Your task to perform on an android device: turn off airplane mode Image 0: 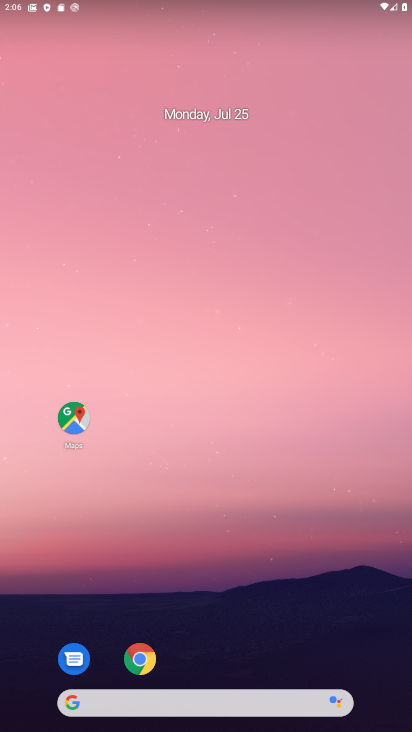
Step 0: drag from (237, 694) to (277, 188)
Your task to perform on an android device: turn off airplane mode Image 1: 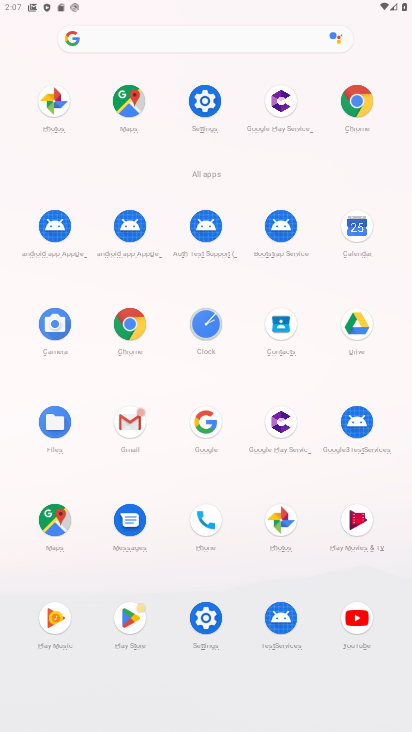
Step 1: click (199, 100)
Your task to perform on an android device: turn off airplane mode Image 2: 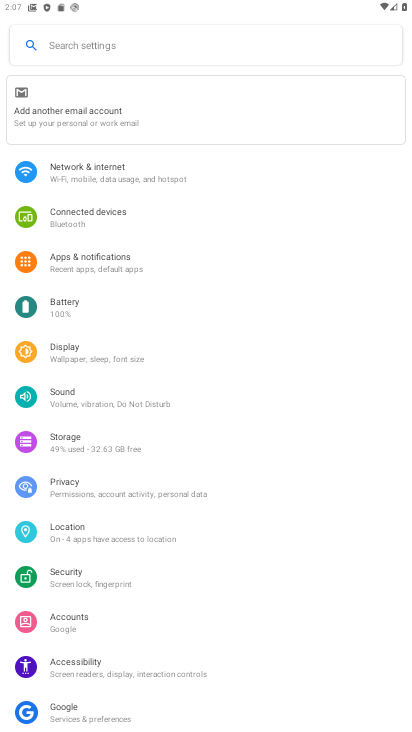
Step 2: click (87, 177)
Your task to perform on an android device: turn off airplane mode Image 3: 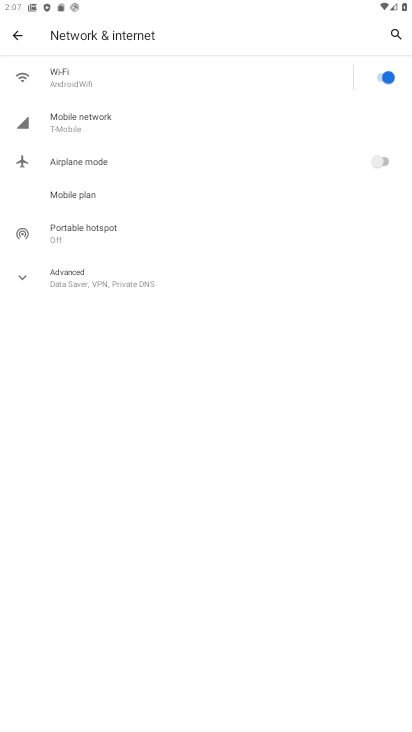
Step 3: click (383, 77)
Your task to perform on an android device: turn off airplane mode Image 4: 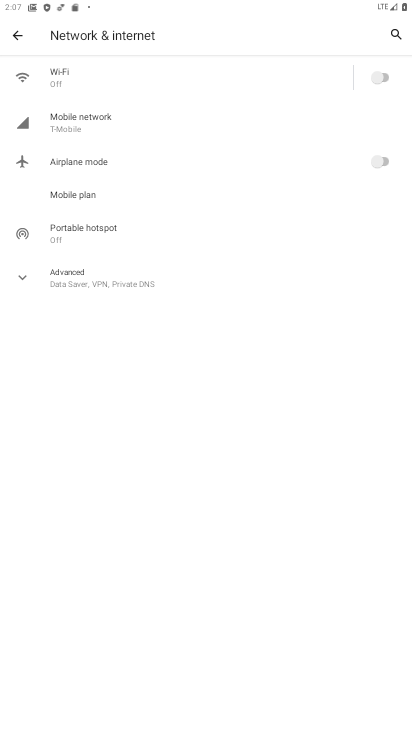
Step 4: click (390, 71)
Your task to perform on an android device: turn off airplane mode Image 5: 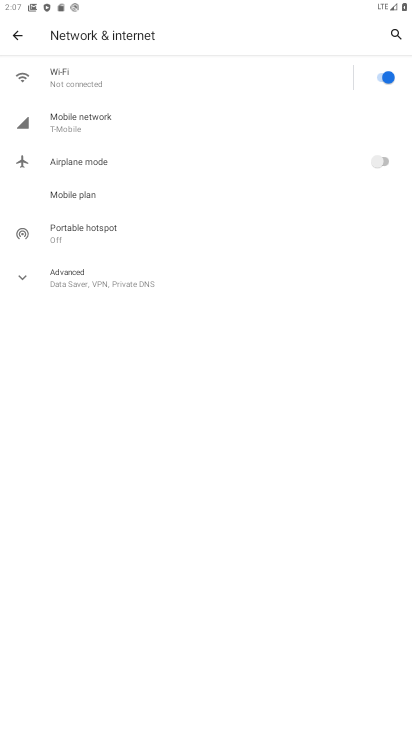
Step 5: task complete